Your task to perform on an android device: toggle improve location accuracy Image 0: 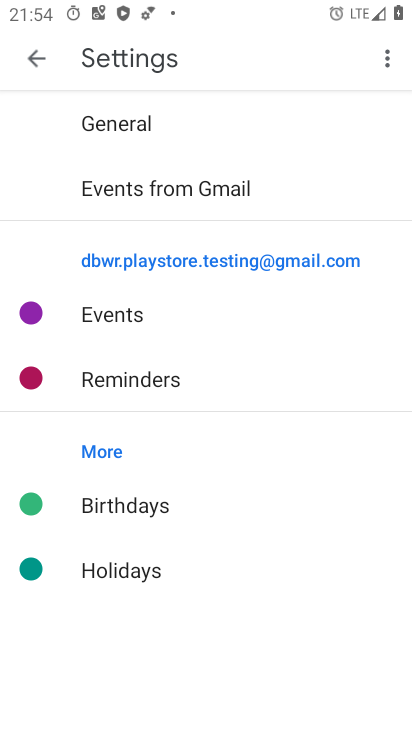
Step 0: press home button
Your task to perform on an android device: toggle improve location accuracy Image 1: 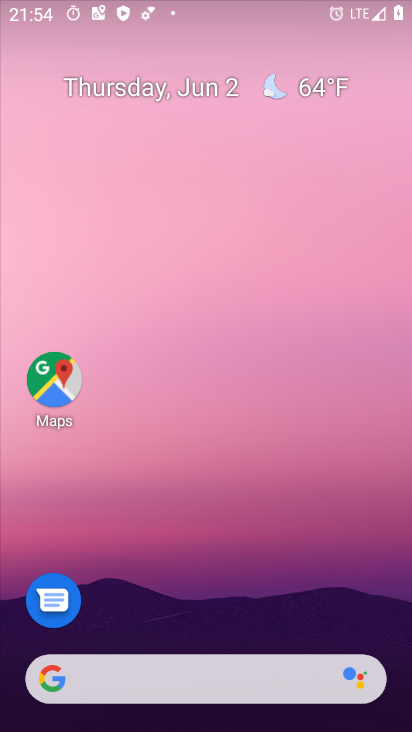
Step 1: drag from (199, 537) to (200, 41)
Your task to perform on an android device: toggle improve location accuracy Image 2: 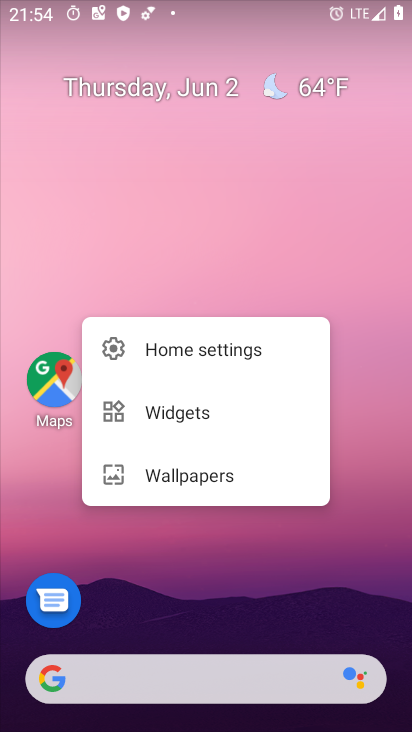
Step 2: click (219, 600)
Your task to perform on an android device: toggle improve location accuracy Image 3: 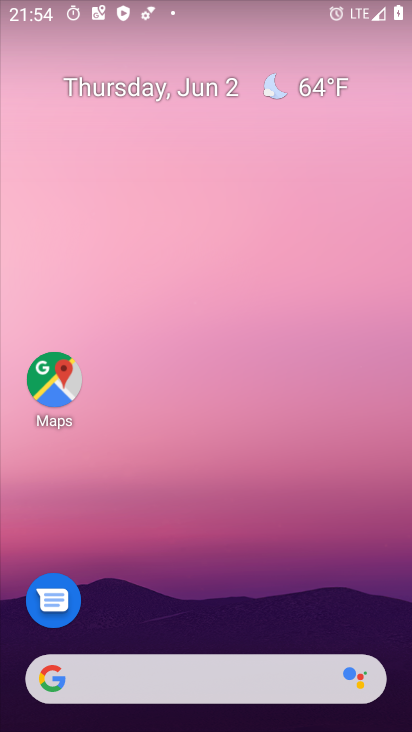
Step 3: drag from (207, 621) to (205, 24)
Your task to perform on an android device: toggle improve location accuracy Image 4: 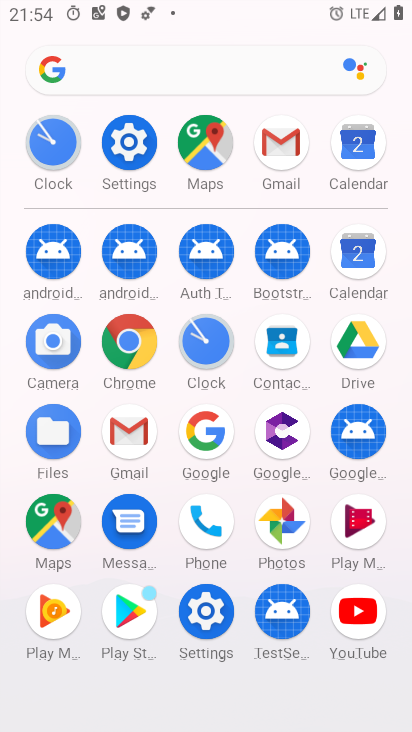
Step 4: click (128, 144)
Your task to perform on an android device: toggle improve location accuracy Image 5: 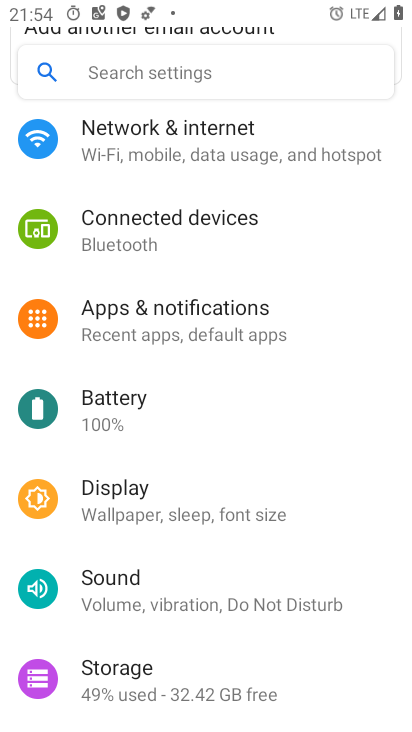
Step 5: drag from (216, 532) to (235, 351)
Your task to perform on an android device: toggle improve location accuracy Image 6: 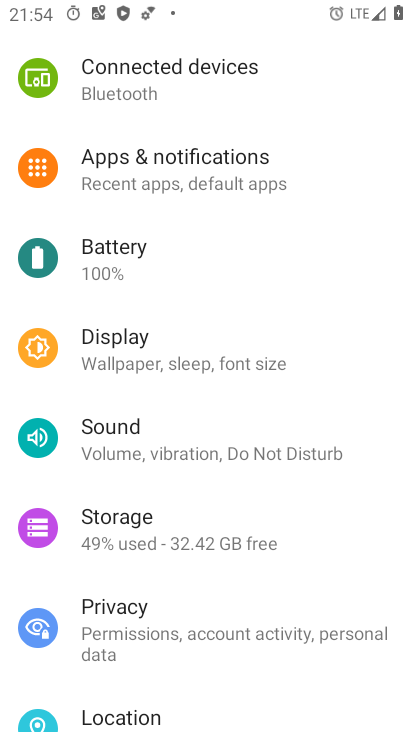
Step 6: click (121, 713)
Your task to perform on an android device: toggle improve location accuracy Image 7: 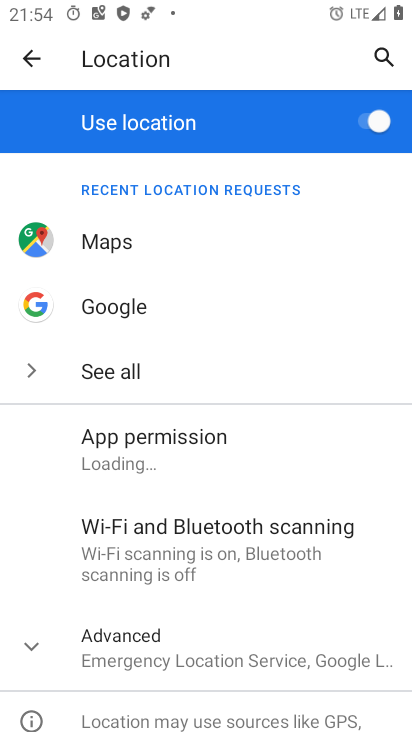
Step 7: click (144, 647)
Your task to perform on an android device: toggle improve location accuracy Image 8: 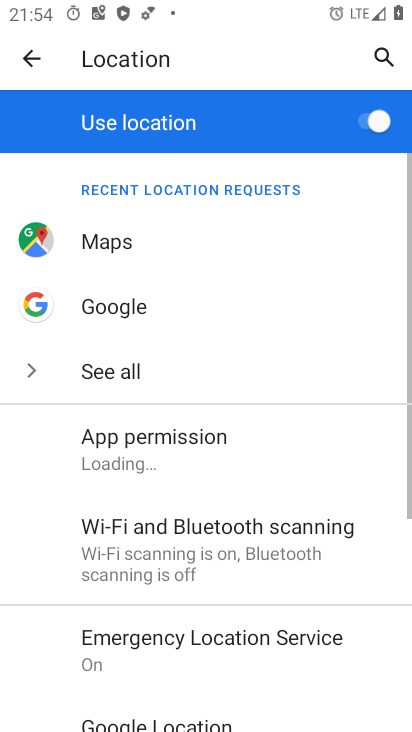
Step 8: drag from (263, 620) to (250, 233)
Your task to perform on an android device: toggle improve location accuracy Image 9: 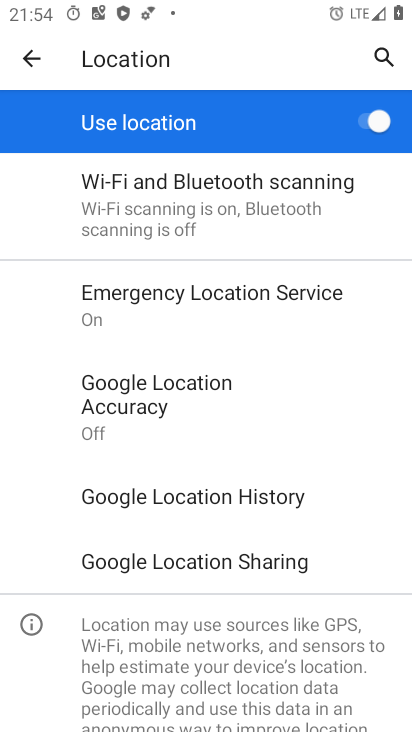
Step 9: click (189, 393)
Your task to perform on an android device: toggle improve location accuracy Image 10: 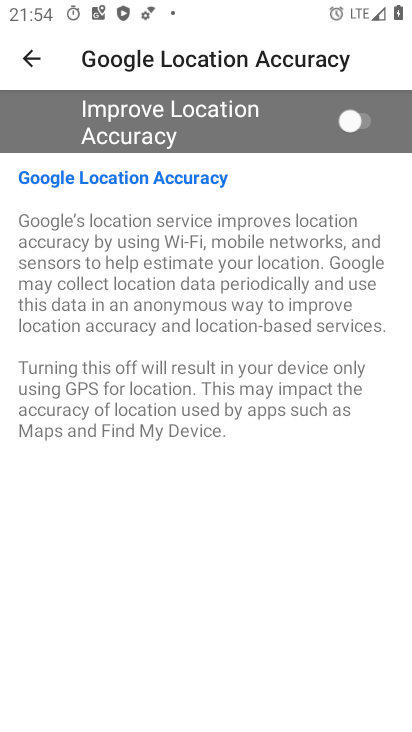
Step 10: click (356, 121)
Your task to perform on an android device: toggle improve location accuracy Image 11: 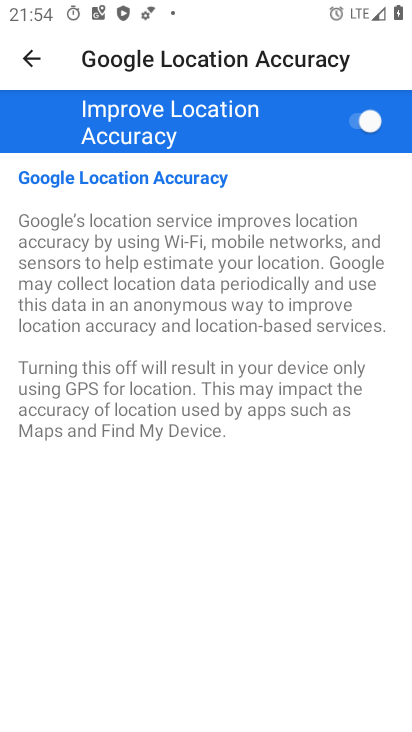
Step 11: task complete